Your task to perform on an android device: find photos in the google photos app Image 0: 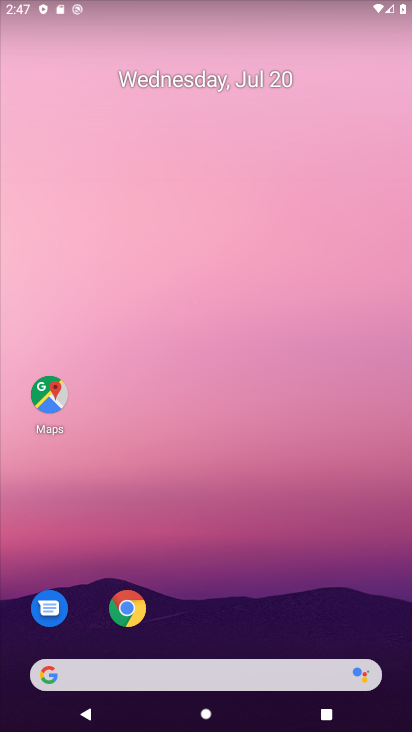
Step 0: drag from (274, 613) to (260, 74)
Your task to perform on an android device: find photos in the google photos app Image 1: 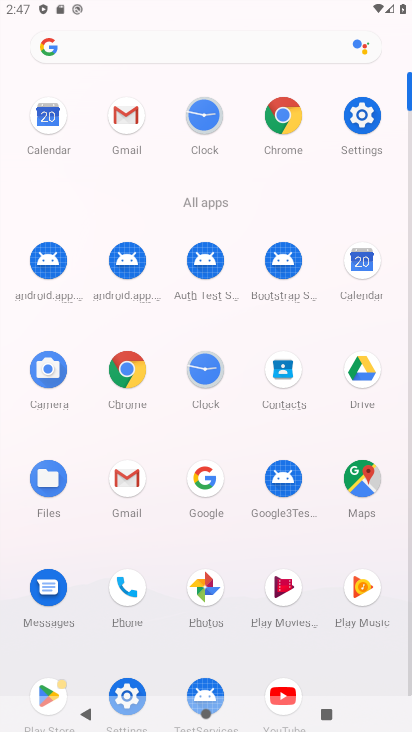
Step 1: click (206, 584)
Your task to perform on an android device: find photos in the google photos app Image 2: 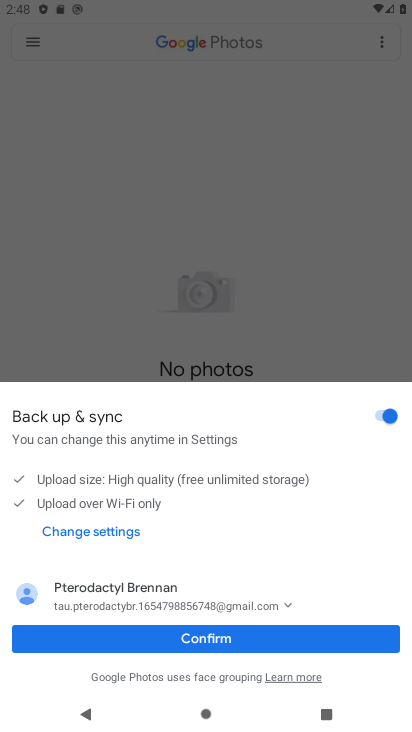
Step 2: press home button
Your task to perform on an android device: find photos in the google photos app Image 3: 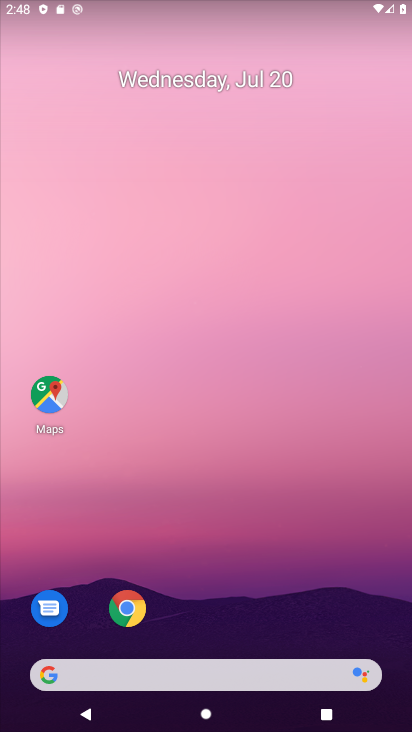
Step 3: drag from (291, 641) to (217, 45)
Your task to perform on an android device: find photos in the google photos app Image 4: 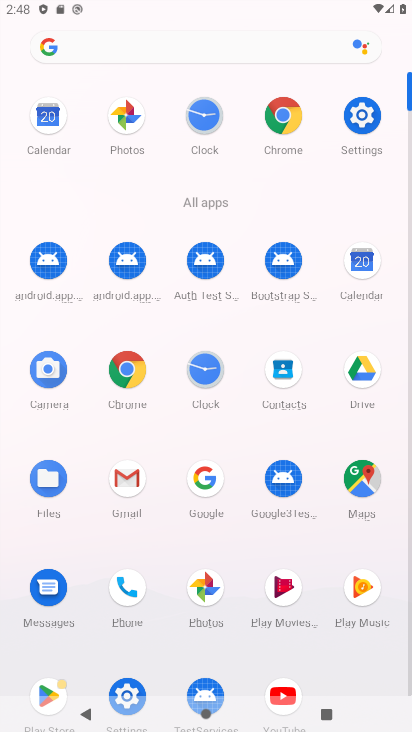
Step 4: click (122, 109)
Your task to perform on an android device: find photos in the google photos app Image 5: 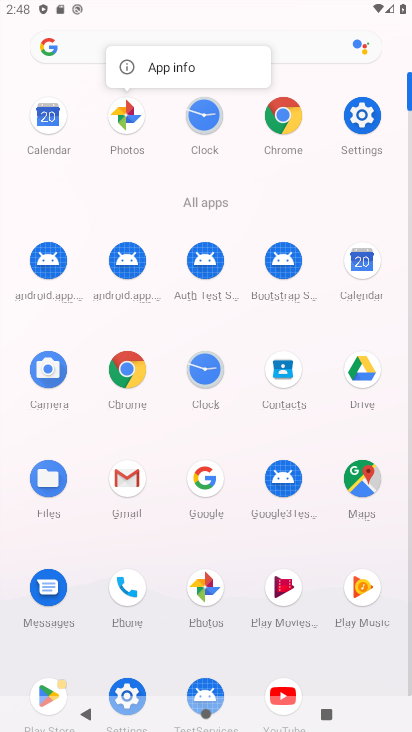
Step 5: click (124, 121)
Your task to perform on an android device: find photos in the google photos app Image 6: 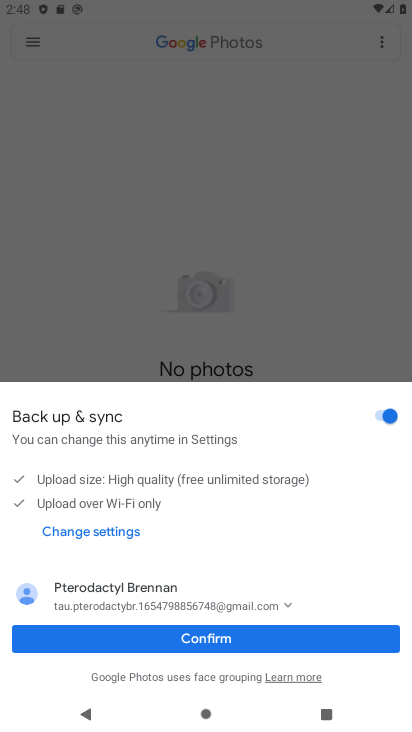
Step 6: click (227, 633)
Your task to perform on an android device: find photos in the google photos app Image 7: 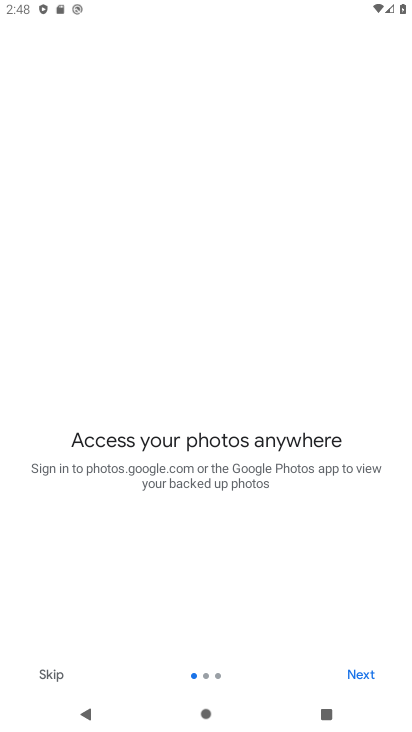
Step 7: click (355, 669)
Your task to perform on an android device: find photos in the google photos app Image 8: 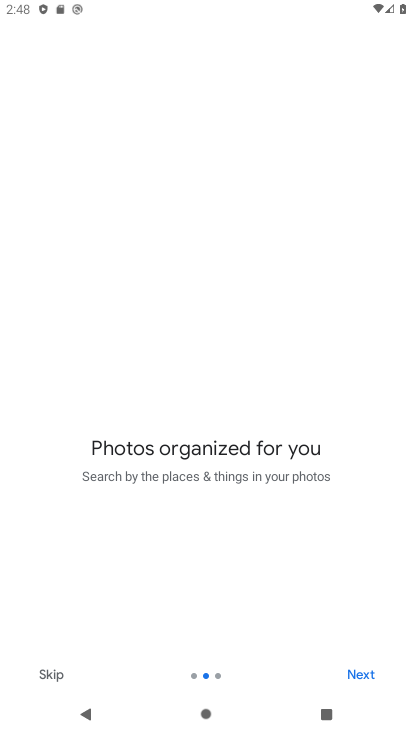
Step 8: click (355, 669)
Your task to perform on an android device: find photos in the google photos app Image 9: 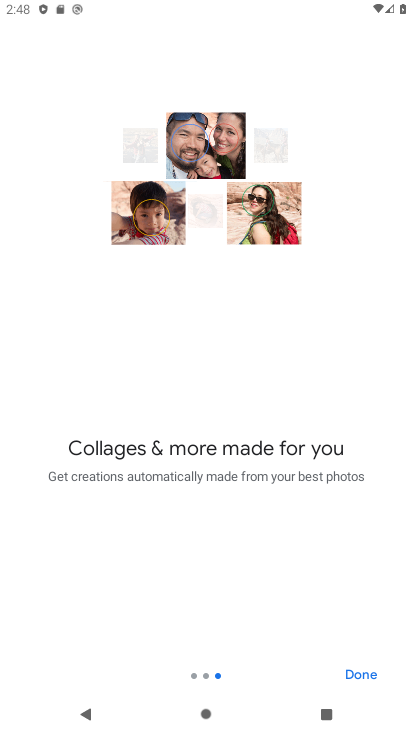
Step 9: click (355, 669)
Your task to perform on an android device: find photos in the google photos app Image 10: 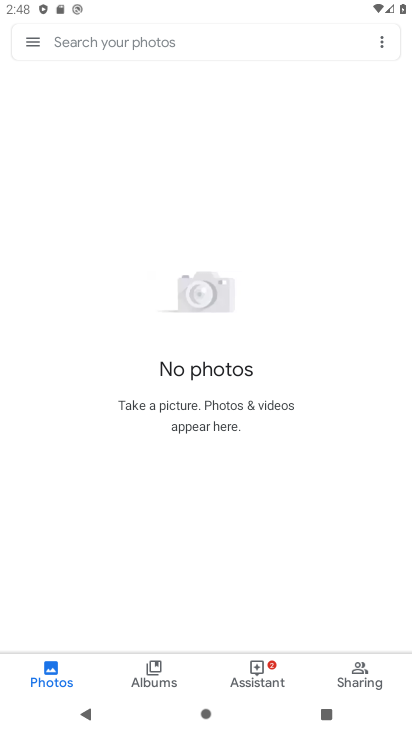
Step 10: task complete